Your task to perform on an android device: toggle improve location accuracy Image 0: 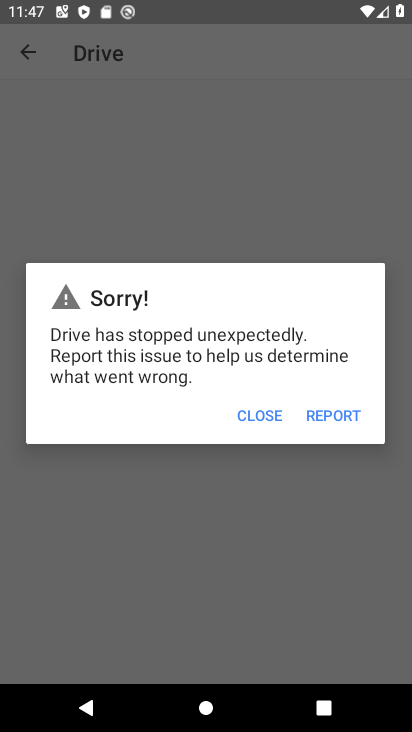
Step 0: press home button
Your task to perform on an android device: toggle improve location accuracy Image 1: 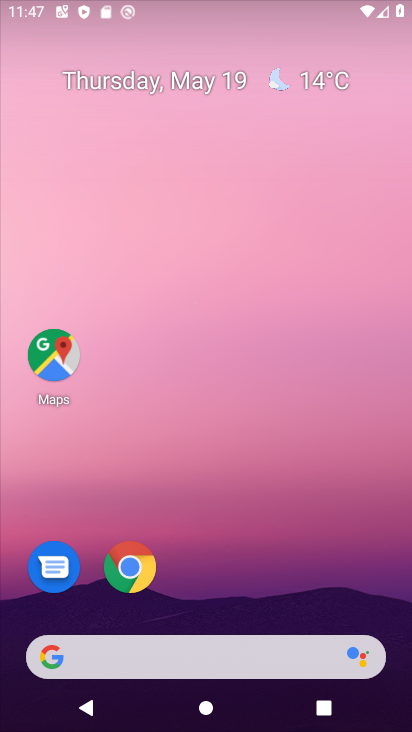
Step 1: drag from (315, 531) to (194, 2)
Your task to perform on an android device: toggle improve location accuracy Image 2: 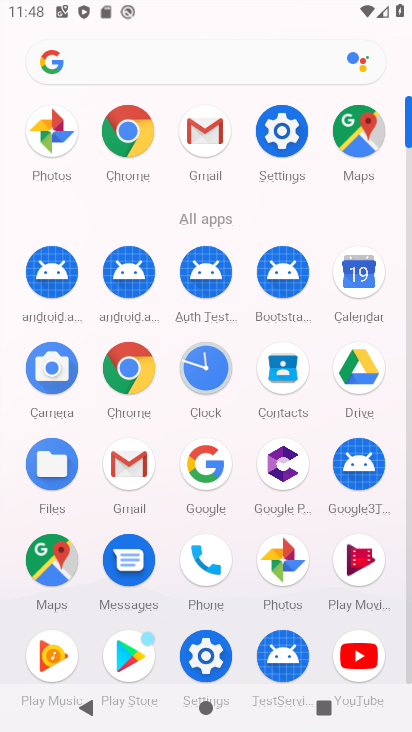
Step 2: click (283, 126)
Your task to perform on an android device: toggle improve location accuracy Image 3: 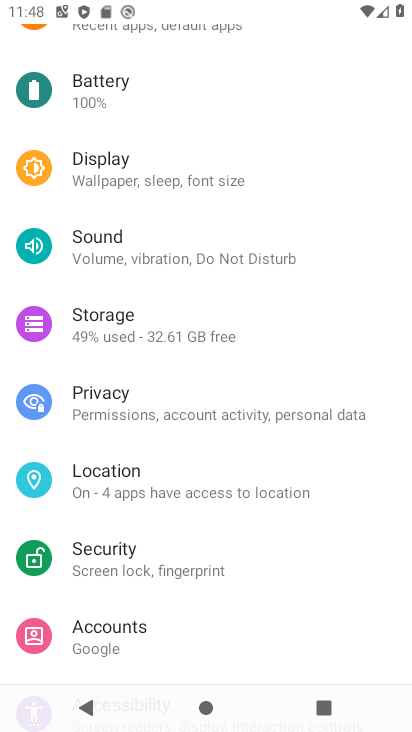
Step 3: drag from (205, 570) to (251, 97)
Your task to perform on an android device: toggle improve location accuracy Image 4: 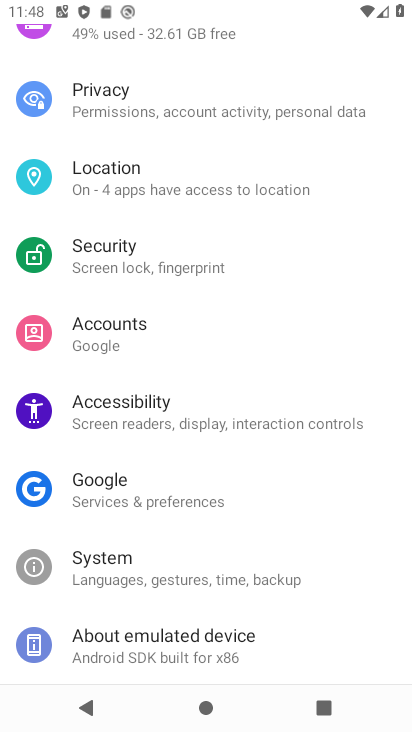
Step 4: click (114, 175)
Your task to perform on an android device: toggle improve location accuracy Image 5: 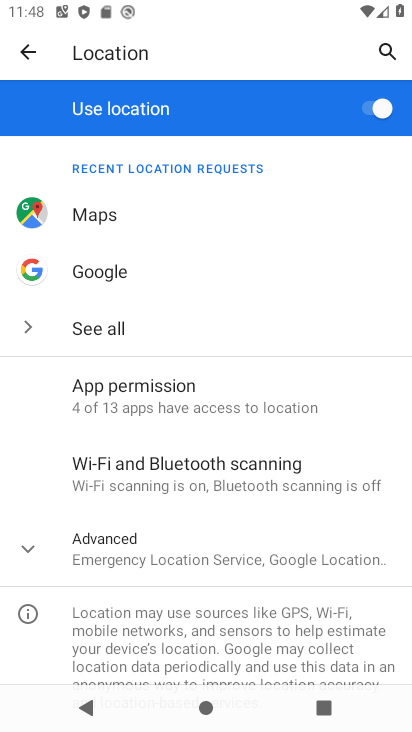
Step 5: drag from (219, 613) to (233, 245)
Your task to perform on an android device: toggle improve location accuracy Image 6: 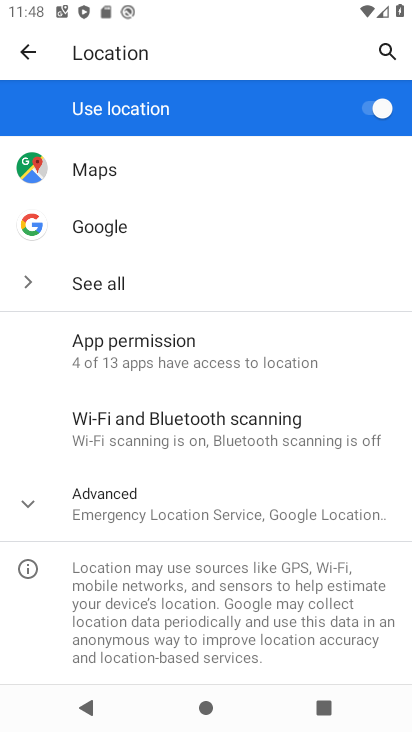
Step 6: click (156, 517)
Your task to perform on an android device: toggle improve location accuracy Image 7: 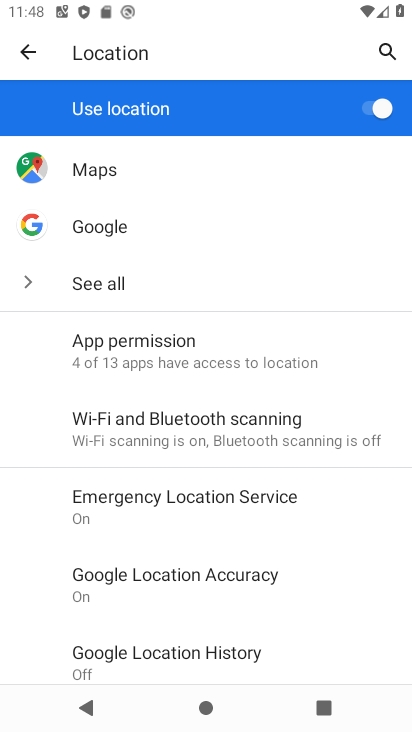
Step 7: drag from (224, 652) to (196, 303)
Your task to perform on an android device: toggle improve location accuracy Image 8: 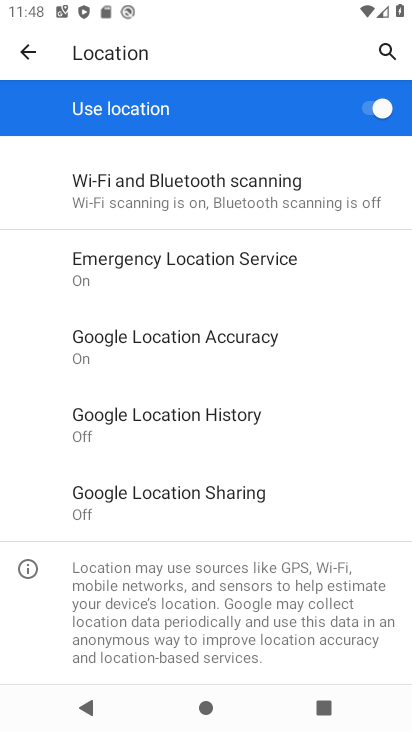
Step 8: click (199, 341)
Your task to perform on an android device: toggle improve location accuracy Image 9: 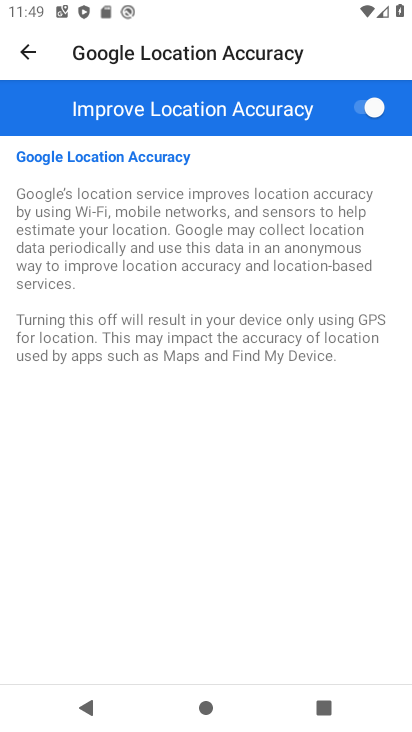
Step 9: click (373, 109)
Your task to perform on an android device: toggle improve location accuracy Image 10: 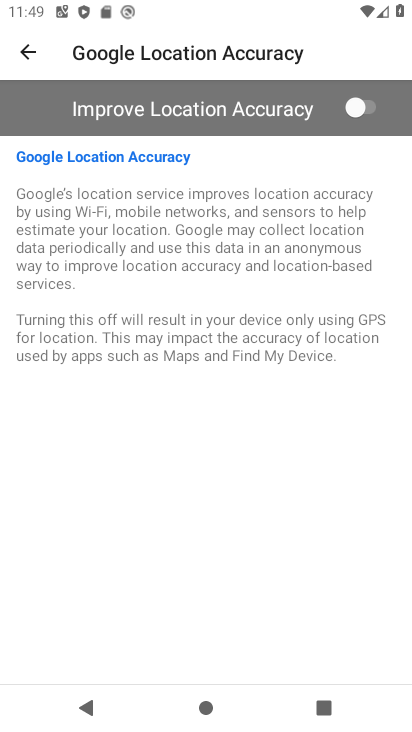
Step 10: task complete